Your task to perform on an android device: check the backup settings in the google photos Image 0: 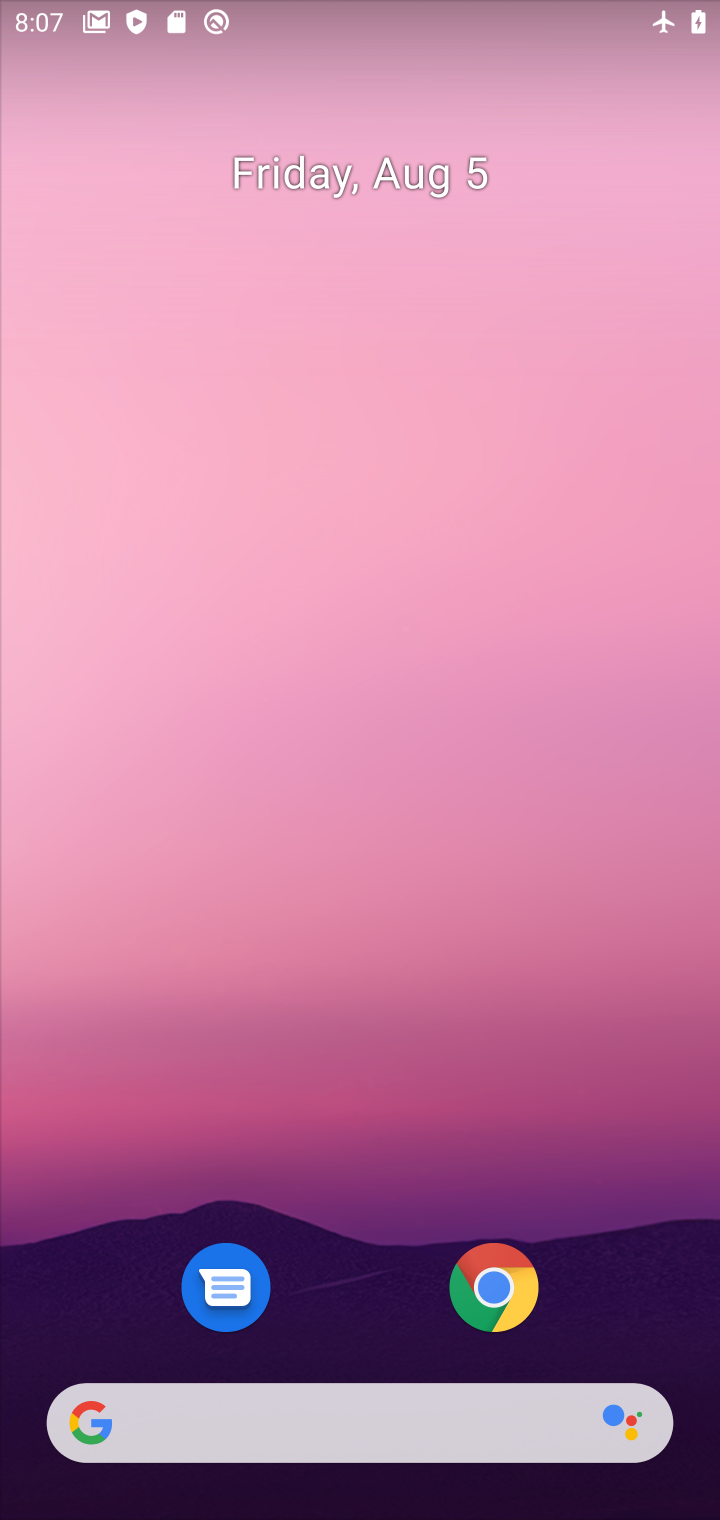
Step 0: drag from (408, 1354) to (354, 149)
Your task to perform on an android device: check the backup settings in the google photos Image 1: 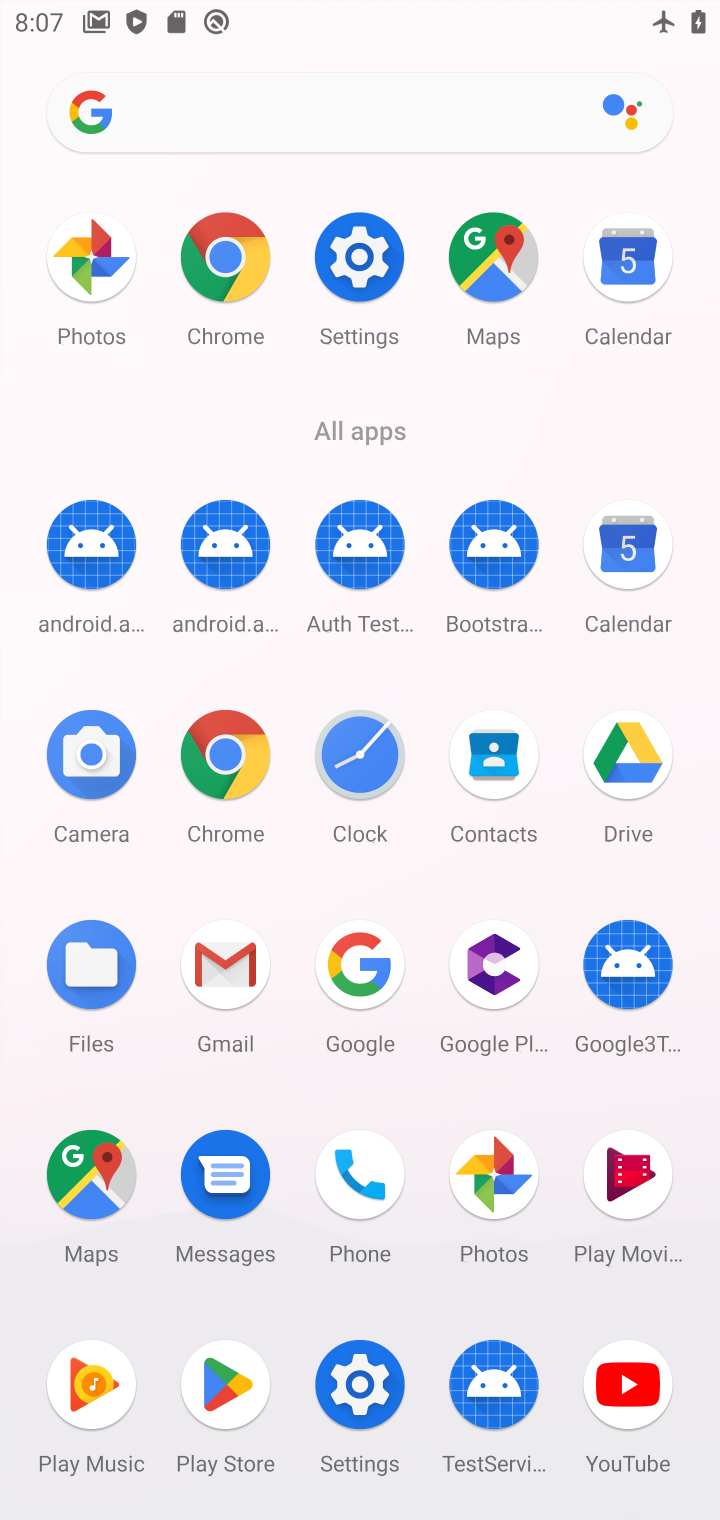
Step 1: click (490, 1157)
Your task to perform on an android device: check the backup settings in the google photos Image 2: 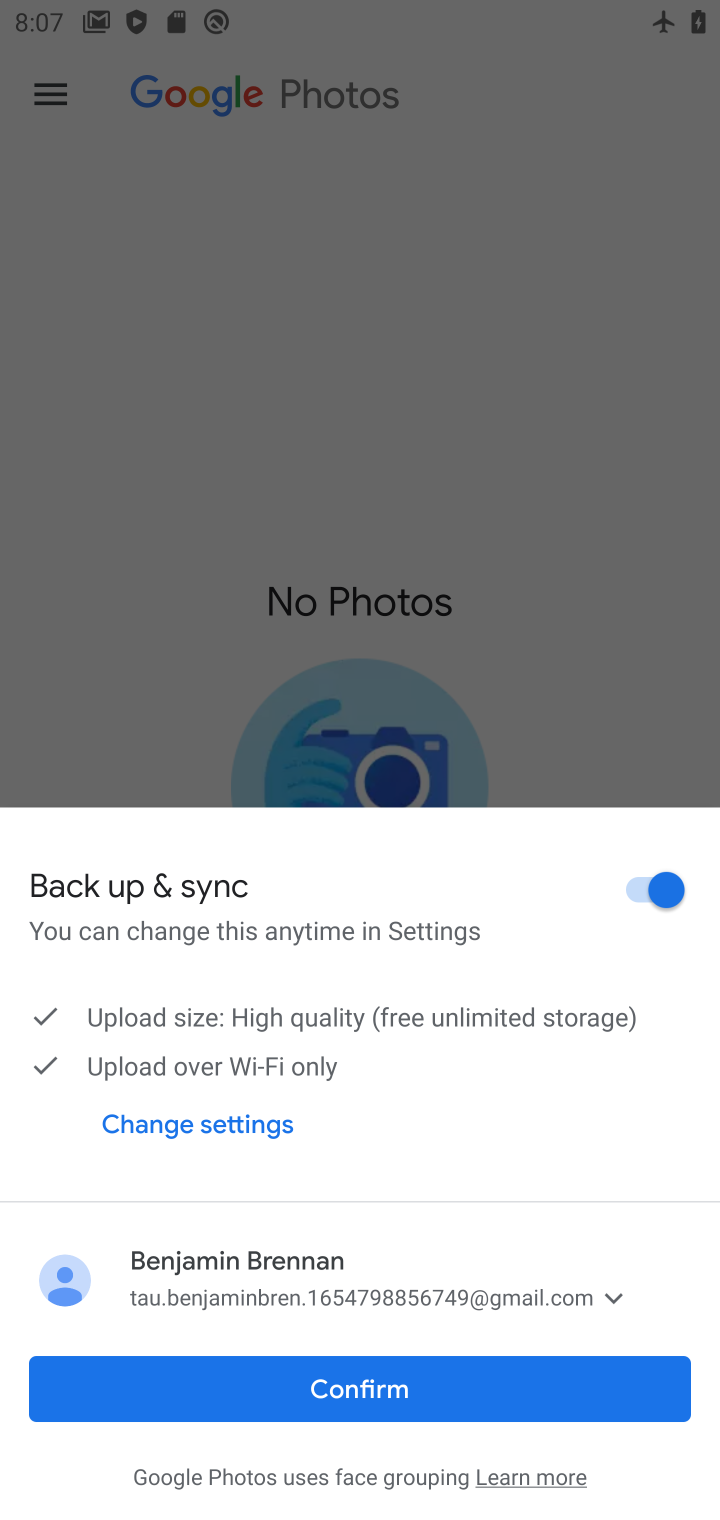
Step 2: click (307, 1408)
Your task to perform on an android device: check the backup settings in the google photos Image 3: 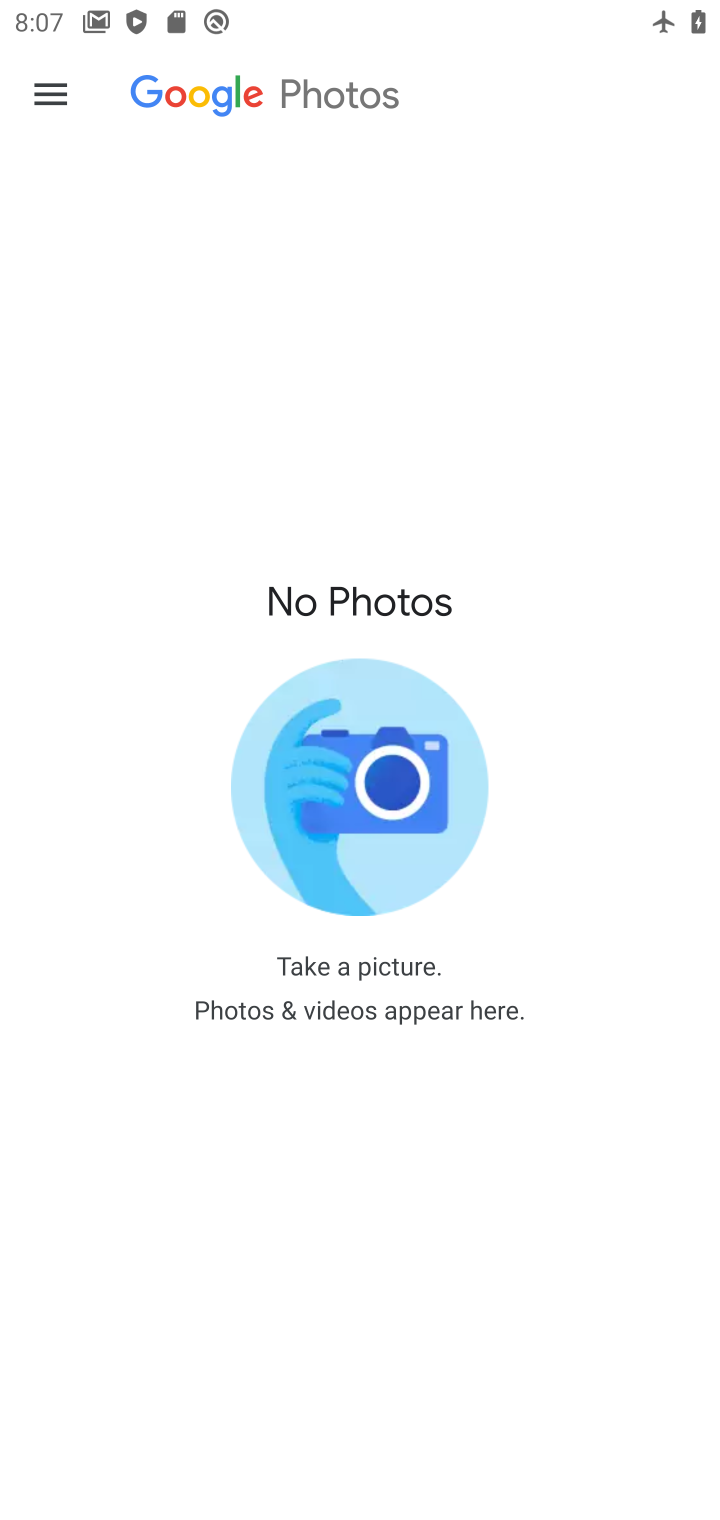
Step 3: click (50, 97)
Your task to perform on an android device: check the backup settings in the google photos Image 4: 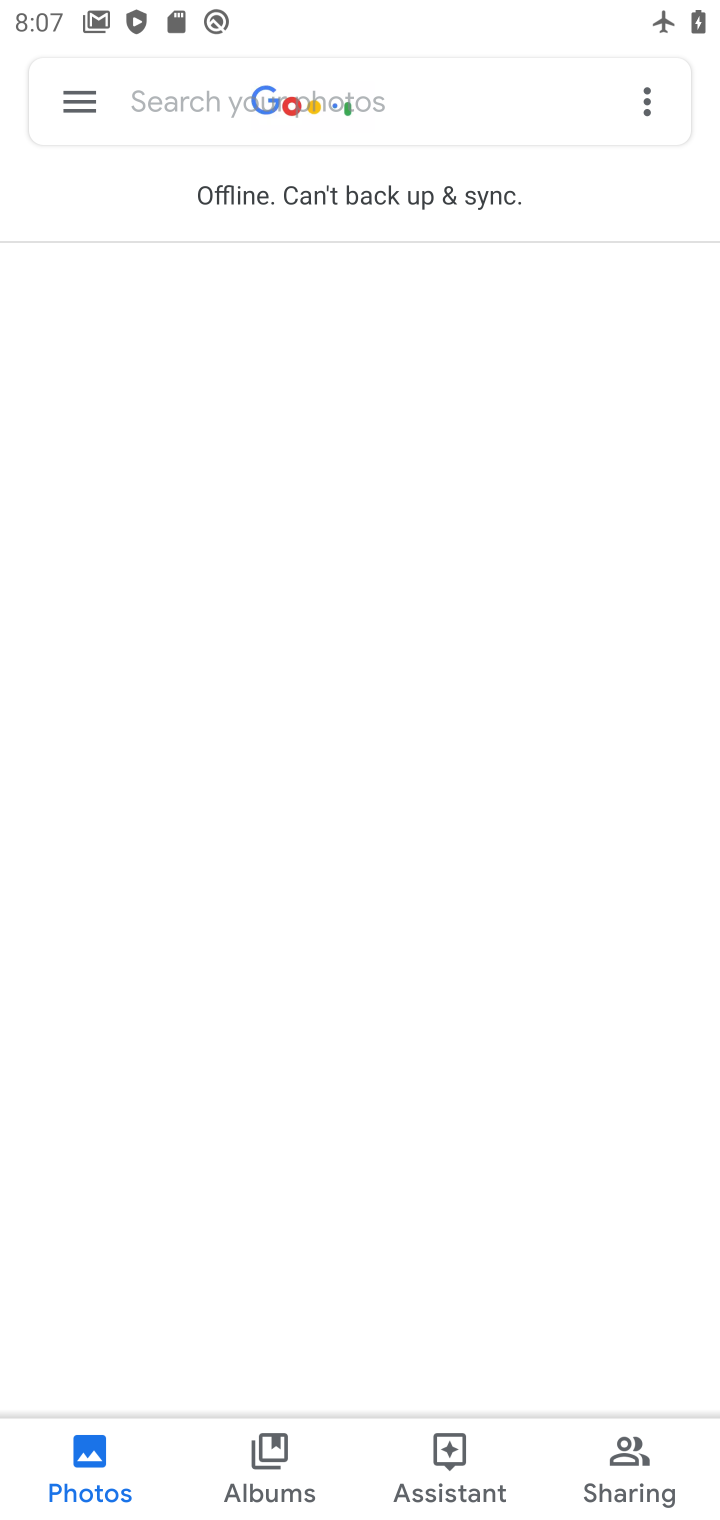
Step 4: click (78, 95)
Your task to perform on an android device: check the backup settings in the google photos Image 5: 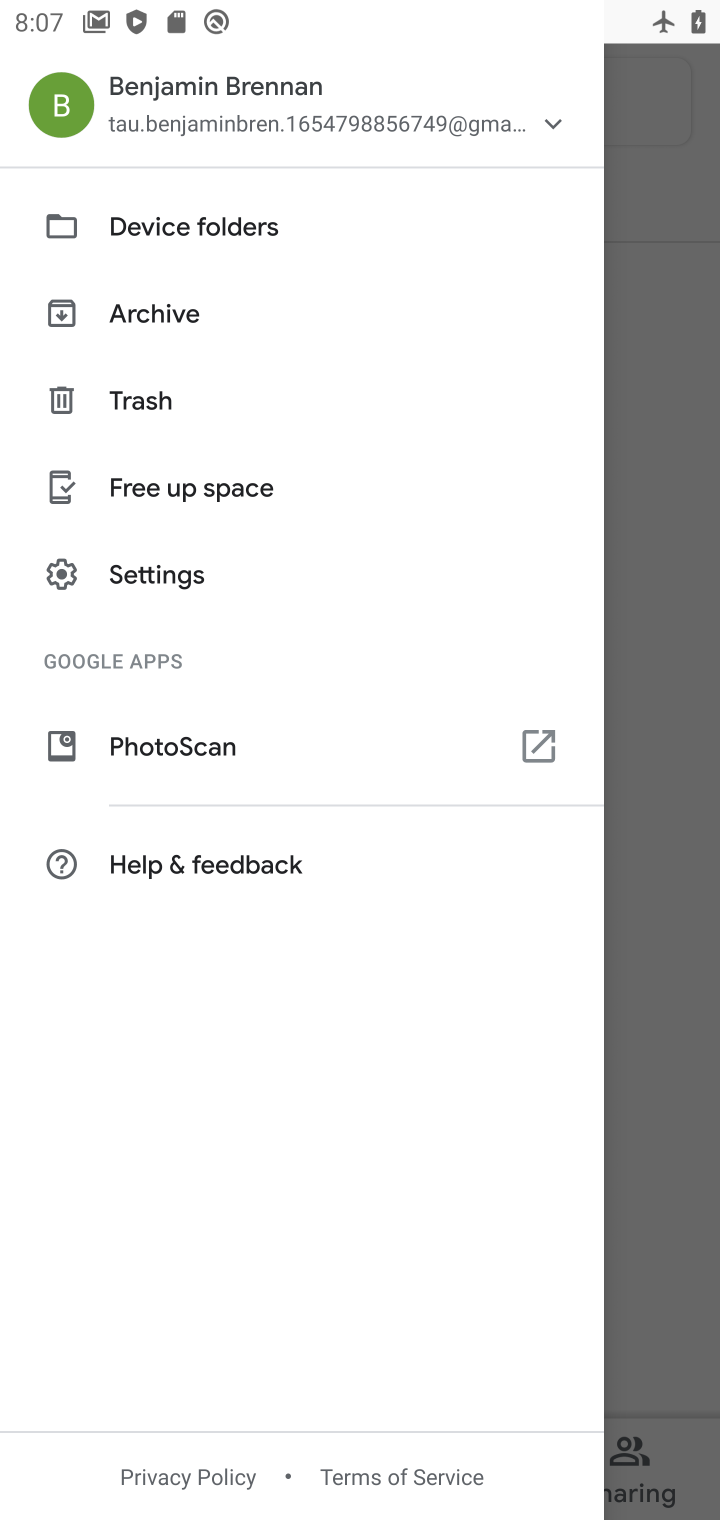
Step 5: click (185, 571)
Your task to perform on an android device: check the backup settings in the google photos Image 6: 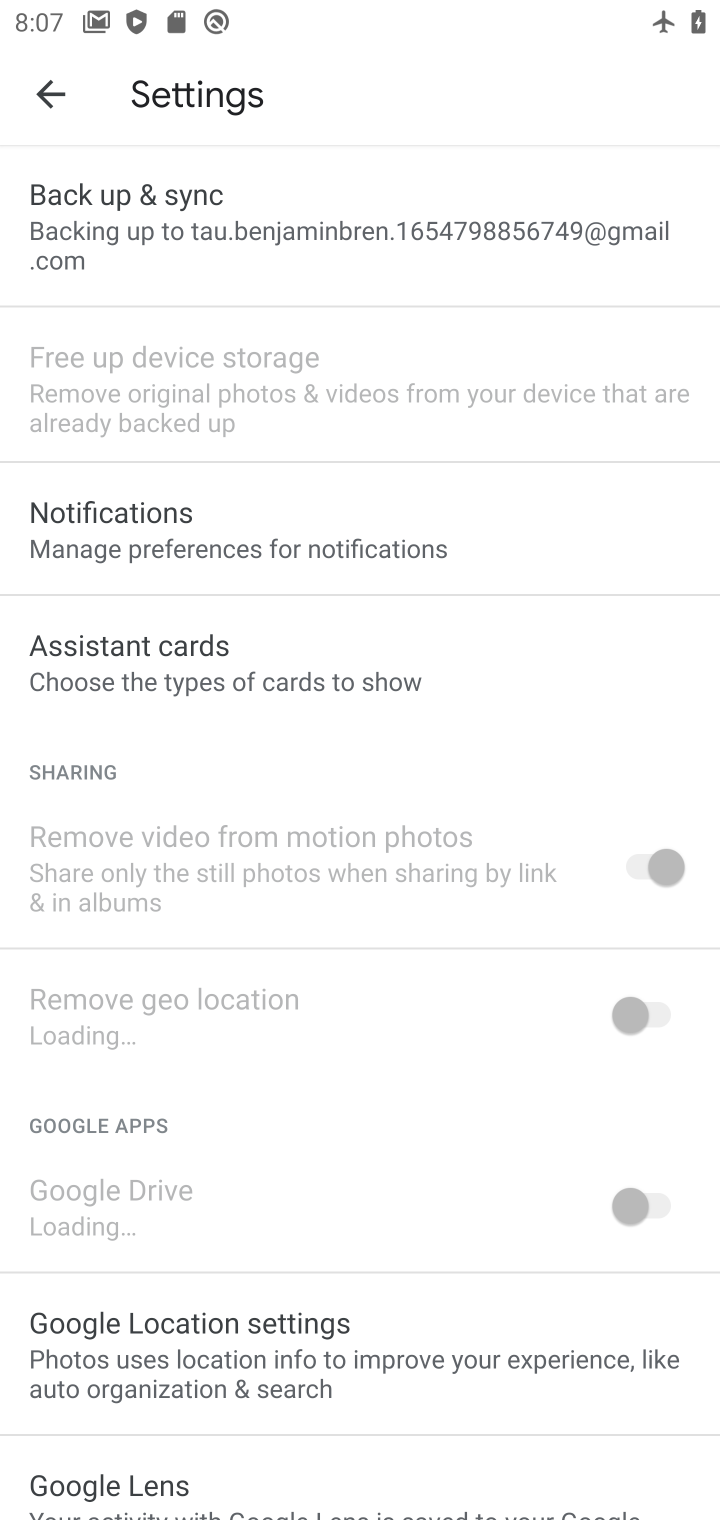
Step 6: click (139, 220)
Your task to perform on an android device: check the backup settings in the google photos Image 7: 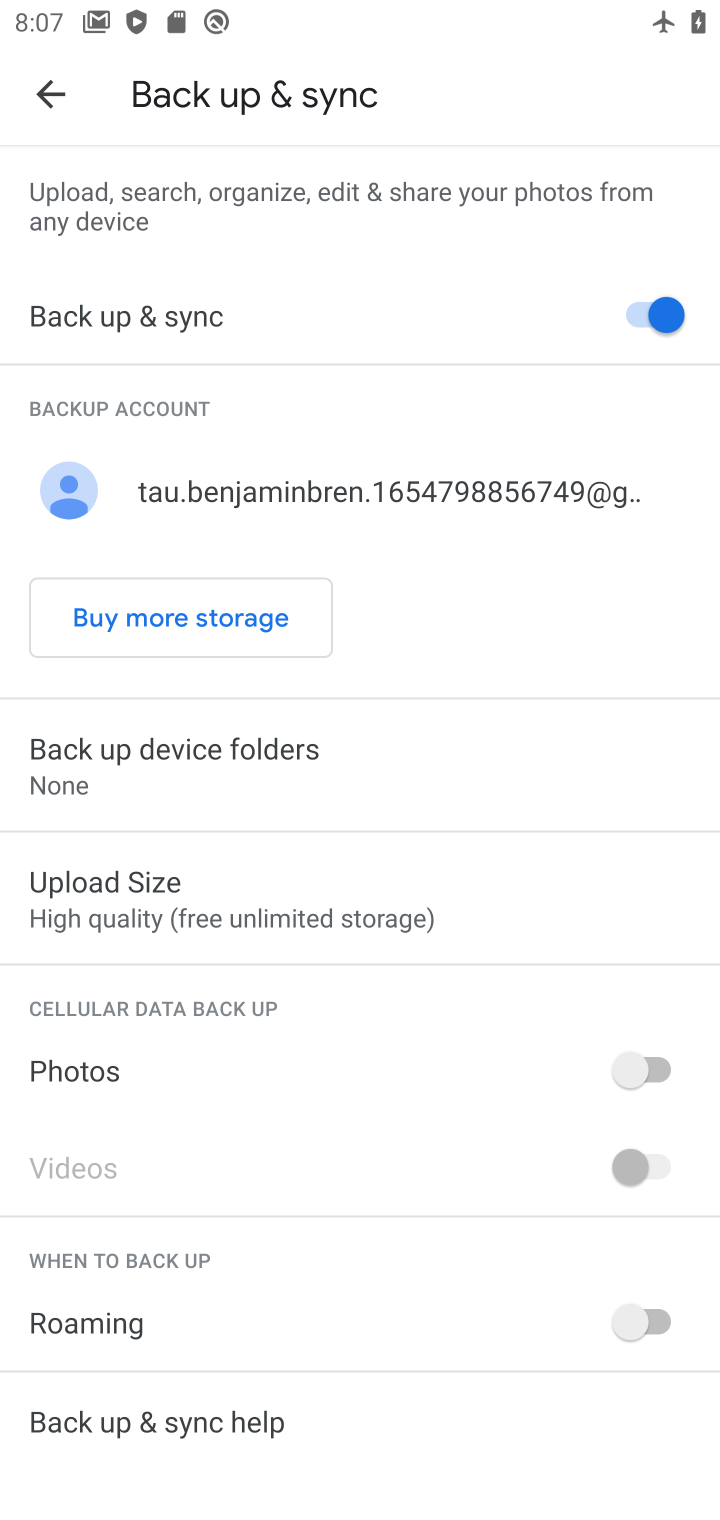
Step 7: task complete